Your task to perform on an android device: move an email to a new category in the gmail app Image 0: 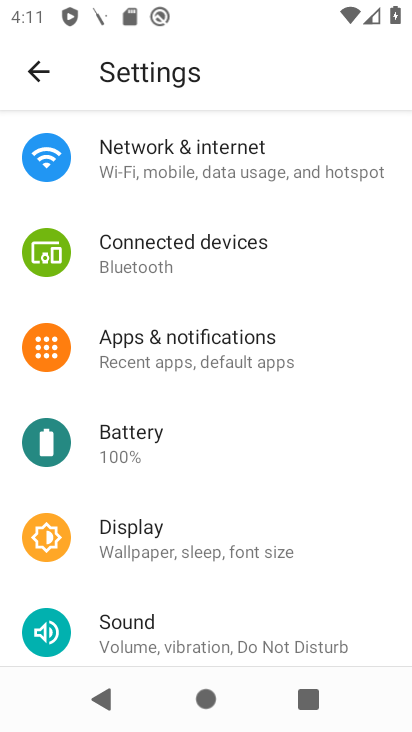
Step 0: press home button
Your task to perform on an android device: move an email to a new category in the gmail app Image 1: 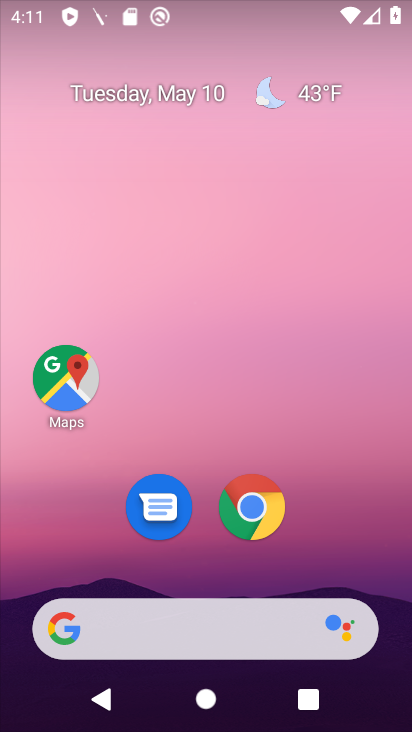
Step 1: drag from (215, 597) to (332, 321)
Your task to perform on an android device: move an email to a new category in the gmail app Image 2: 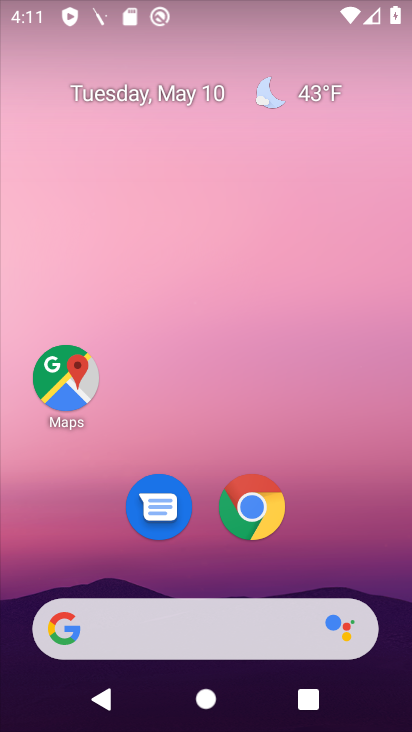
Step 2: drag from (197, 606) to (372, 27)
Your task to perform on an android device: move an email to a new category in the gmail app Image 3: 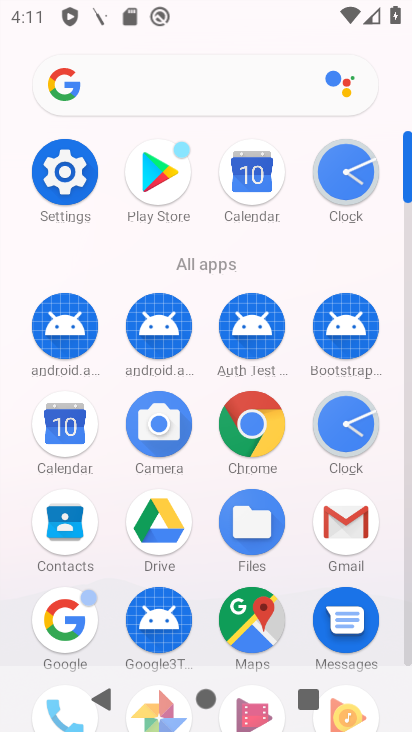
Step 3: click (350, 525)
Your task to perform on an android device: move an email to a new category in the gmail app Image 4: 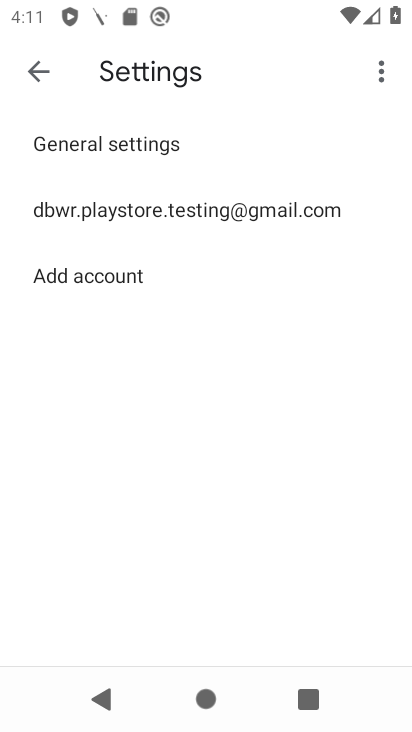
Step 4: click (284, 221)
Your task to perform on an android device: move an email to a new category in the gmail app Image 5: 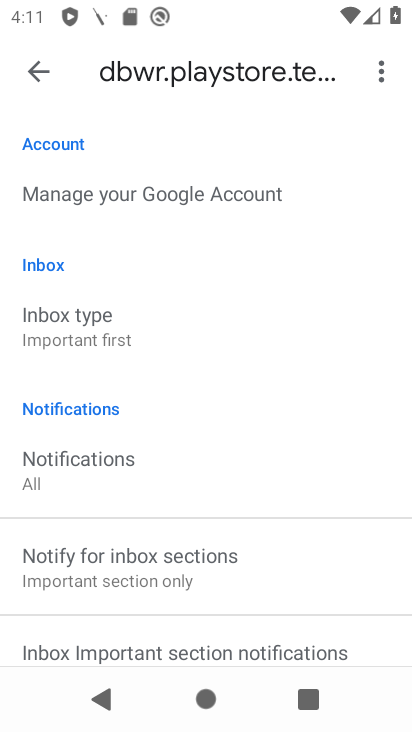
Step 5: click (39, 74)
Your task to perform on an android device: move an email to a new category in the gmail app Image 6: 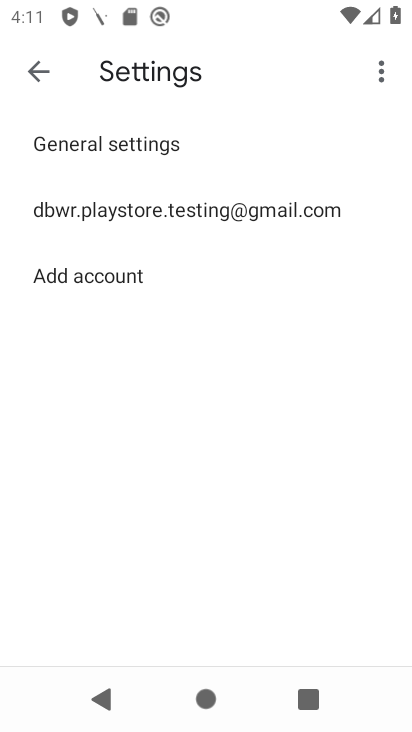
Step 6: click (39, 74)
Your task to perform on an android device: move an email to a new category in the gmail app Image 7: 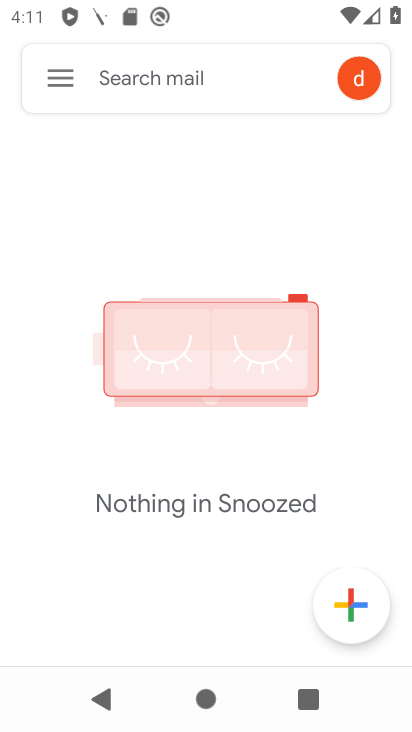
Step 7: click (39, 74)
Your task to perform on an android device: move an email to a new category in the gmail app Image 8: 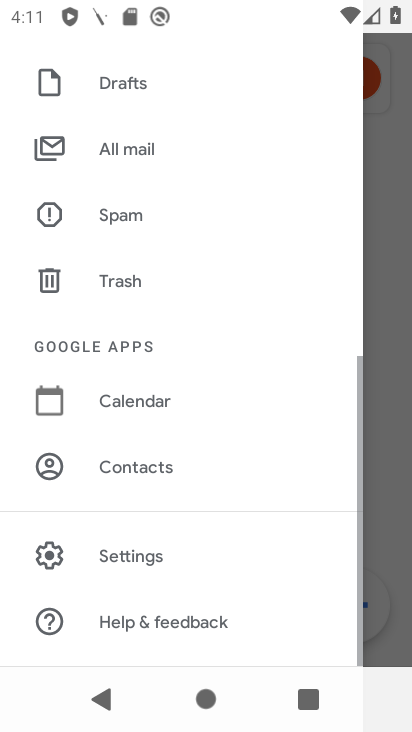
Step 8: click (45, 75)
Your task to perform on an android device: move an email to a new category in the gmail app Image 9: 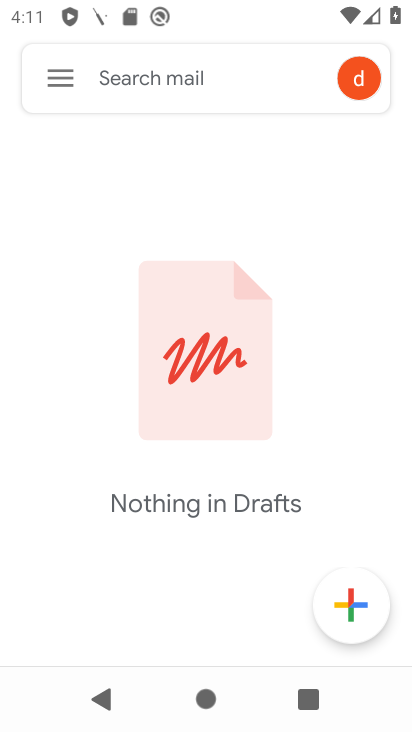
Step 9: click (40, 85)
Your task to perform on an android device: move an email to a new category in the gmail app Image 10: 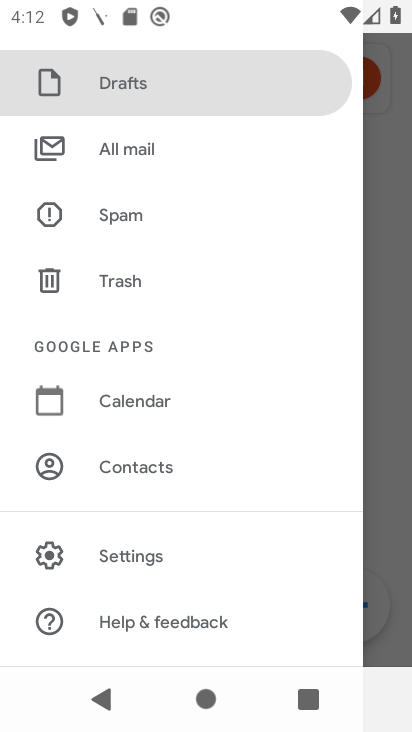
Step 10: click (106, 143)
Your task to perform on an android device: move an email to a new category in the gmail app Image 11: 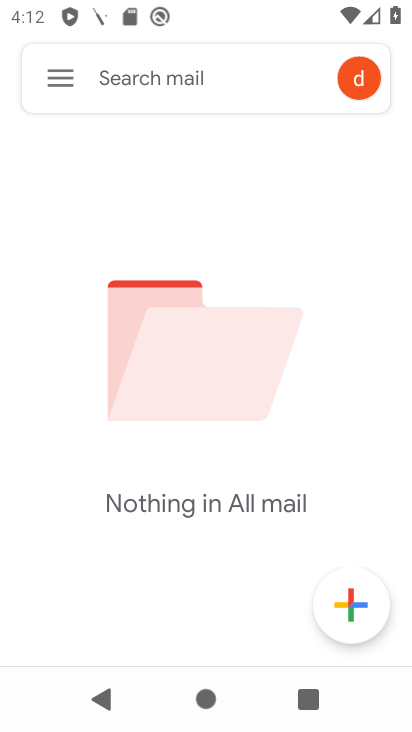
Step 11: task complete